Your task to perform on an android device: What's the weather going to be this weekend? Image 0: 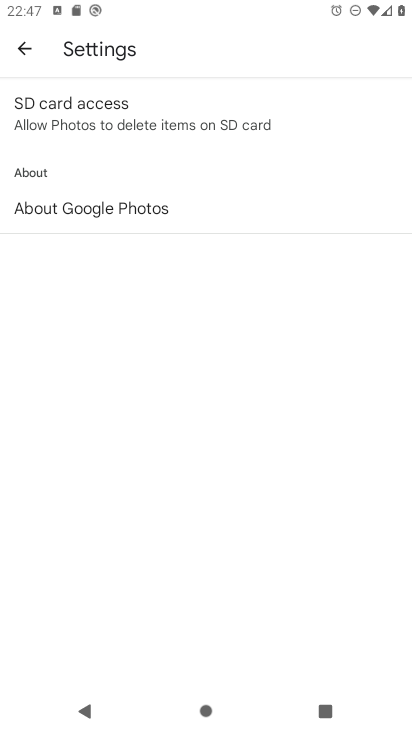
Step 0: press home button
Your task to perform on an android device: What's the weather going to be this weekend? Image 1: 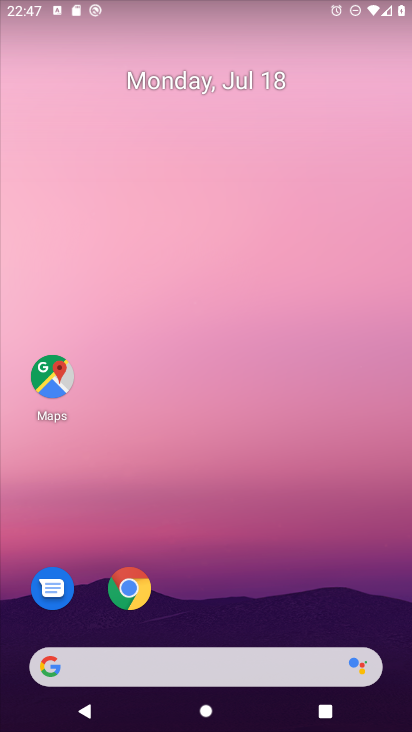
Step 1: drag from (5, 288) to (411, 331)
Your task to perform on an android device: What's the weather going to be this weekend? Image 2: 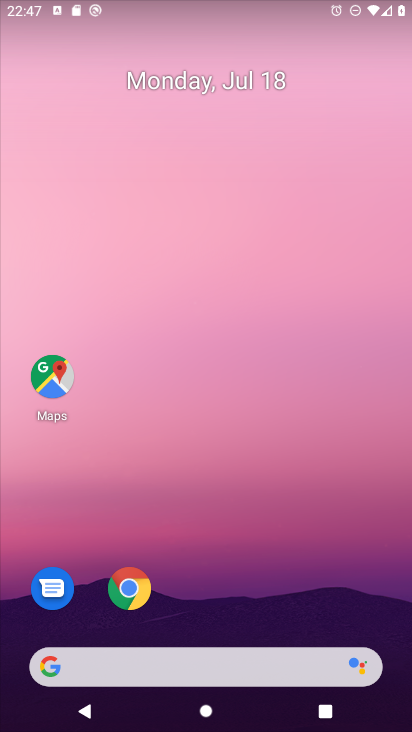
Step 2: drag from (8, 297) to (377, 320)
Your task to perform on an android device: What's the weather going to be this weekend? Image 3: 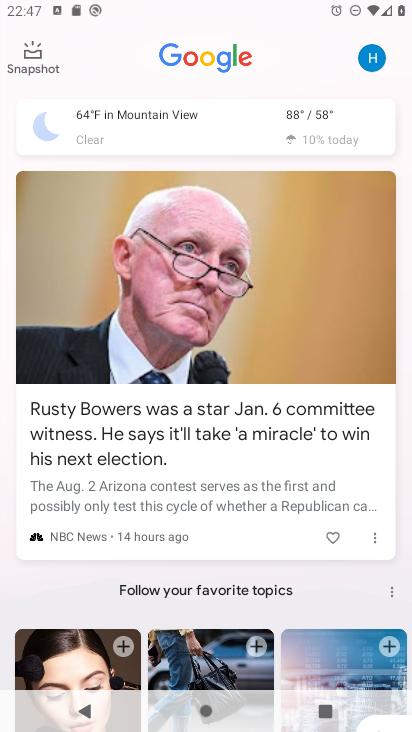
Step 3: click (302, 116)
Your task to perform on an android device: What's the weather going to be this weekend? Image 4: 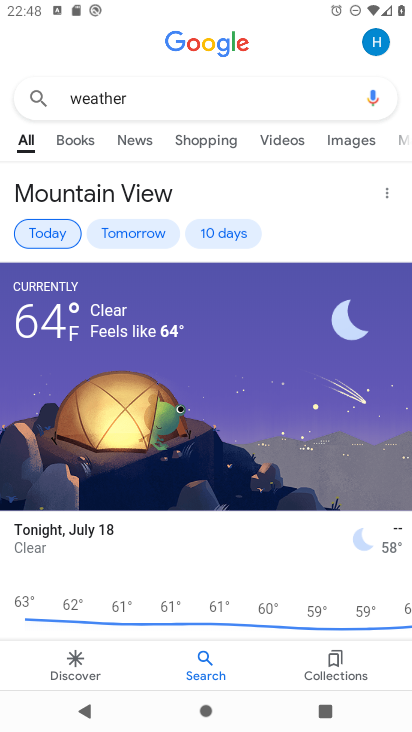
Step 4: click (222, 232)
Your task to perform on an android device: What's the weather going to be this weekend? Image 5: 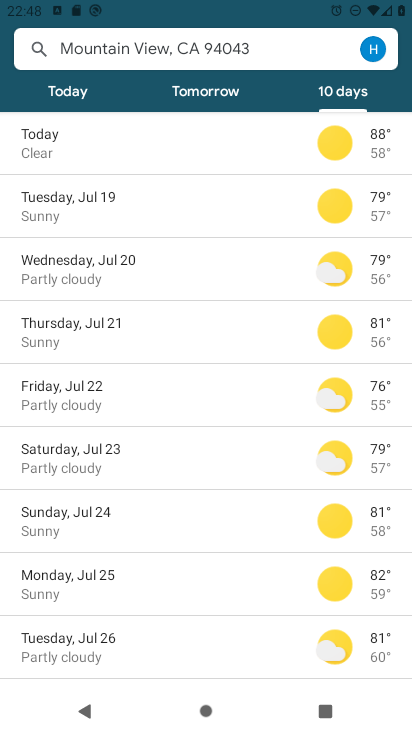
Step 5: task complete